Your task to perform on an android device: turn on priority inbox in the gmail app Image 0: 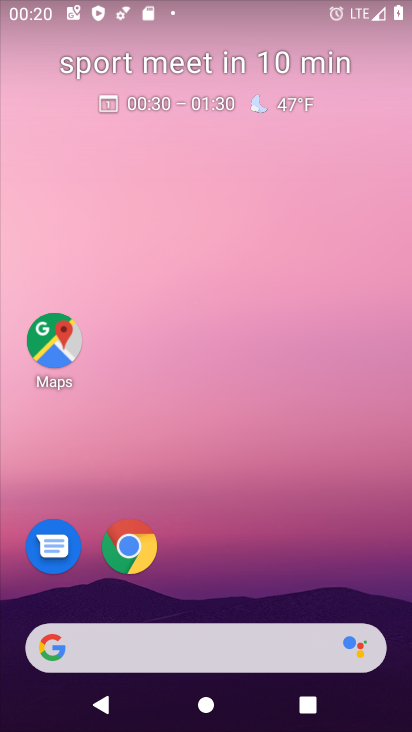
Step 0: drag from (319, 606) to (324, 15)
Your task to perform on an android device: turn on priority inbox in the gmail app Image 1: 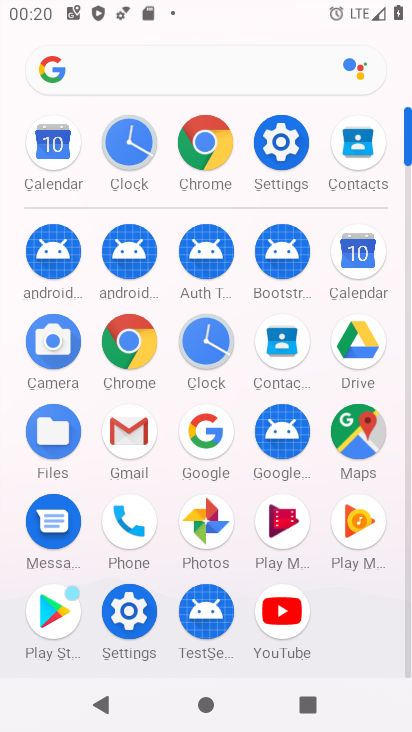
Step 1: click (122, 437)
Your task to perform on an android device: turn on priority inbox in the gmail app Image 2: 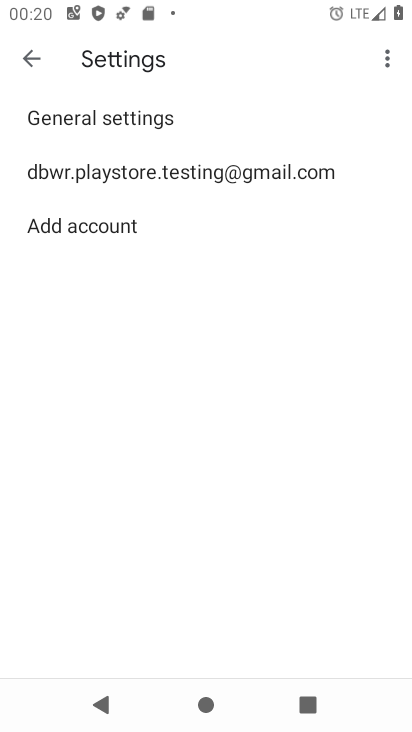
Step 2: click (70, 179)
Your task to perform on an android device: turn on priority inbox in the gmail app Image 3: 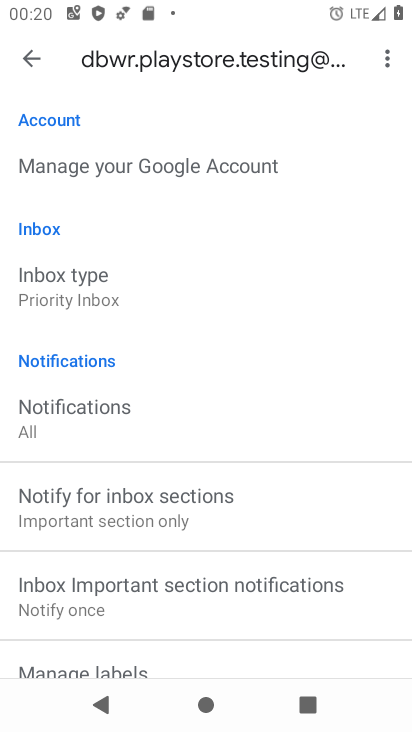
Step 3: click (54, 299)
Your task to perform on an android device: turn on priority inbox in the gmail app Image 4: 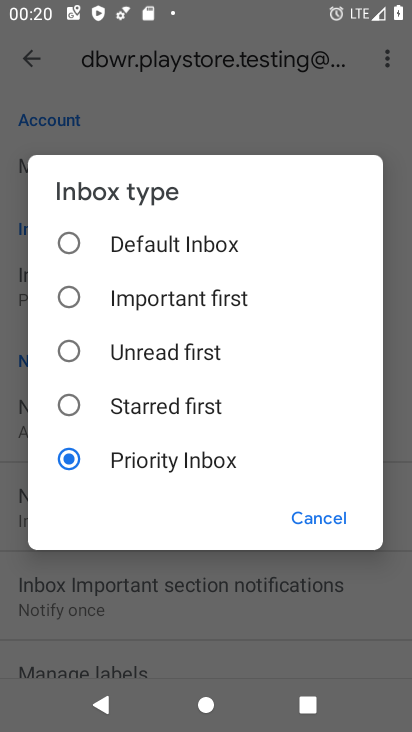
Step 4: task complete